Your task to perform on an android device: toggle data saver in the chrome app Image 0: 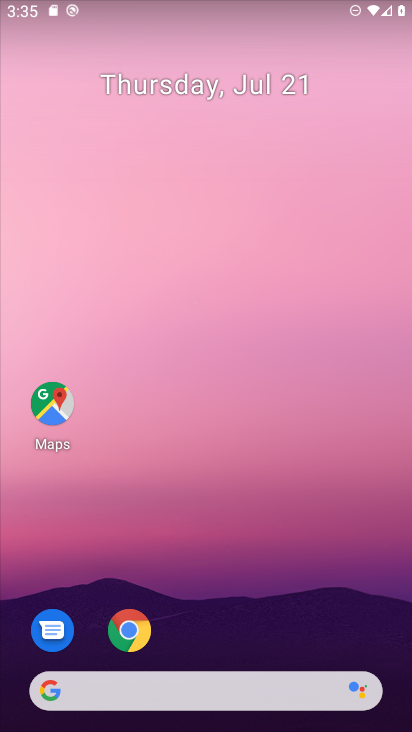
Step 0: click (126, 629)
Your task to perform on an android device: toggle data saver in the chrome app Image 1: 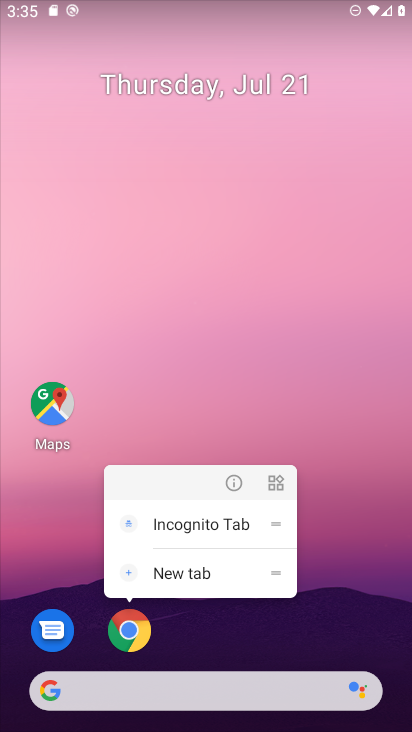
Step 1: click (127, 629)
Your task to perform on an android device: toggle data saver in the chrome app Image 2: 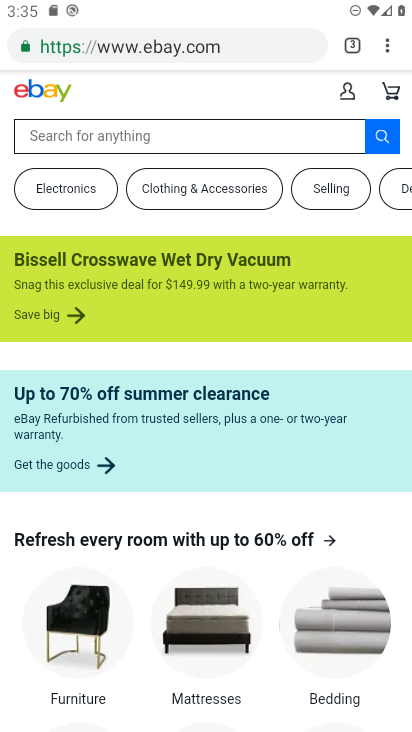
Step 2: drag from (388, 47) to (258, 549)
Your task to perform on an android device: toggle data saver in the chrome app Image 3: 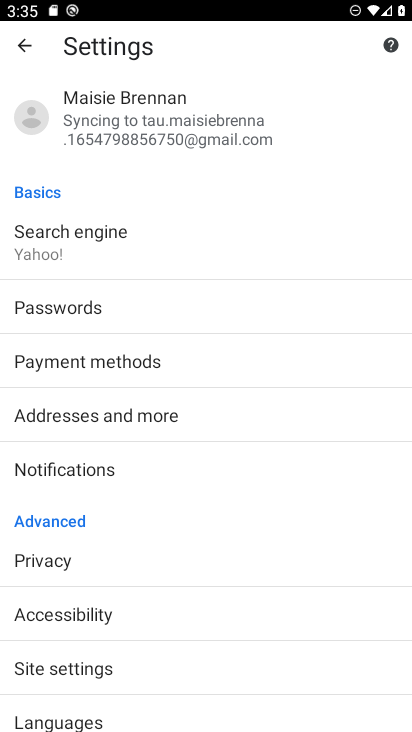
Step 3: drag from (146, 654) to (274, 215)
Your task to perform on an android device: toggle data saver in the chrome app Image 4: 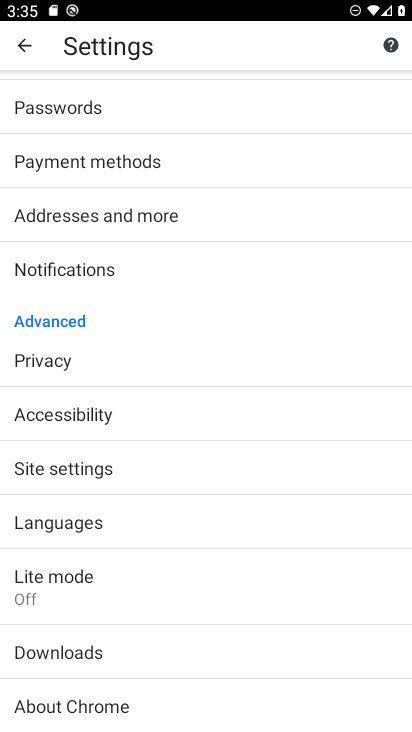
Step 4: click (87, 574)
Your task to perform on an android device: toggle data saver in the chrome app Image 5: 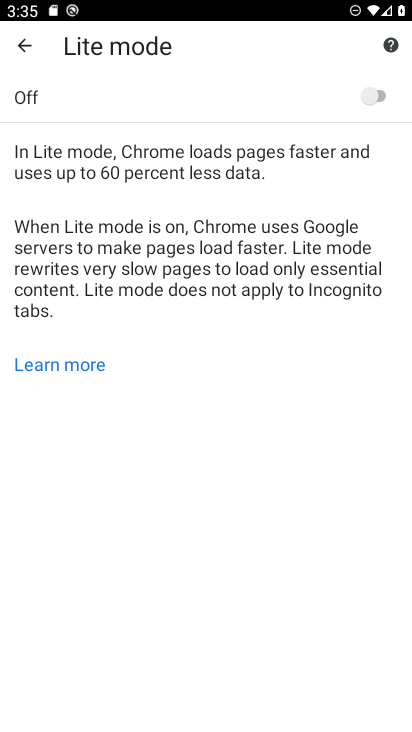
Step 5: click (372, 91)
Your task to perform on an android device: toggle data saver in the chrome app Image 6: 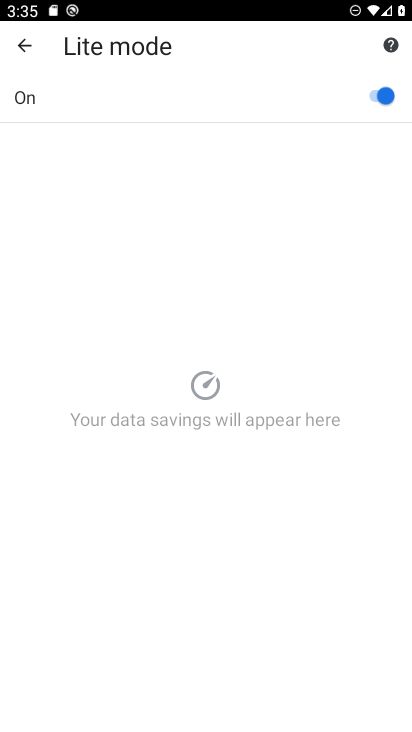
Step 6: task complete